Your task to perform on an android device: Open the stopwatch Image 0: 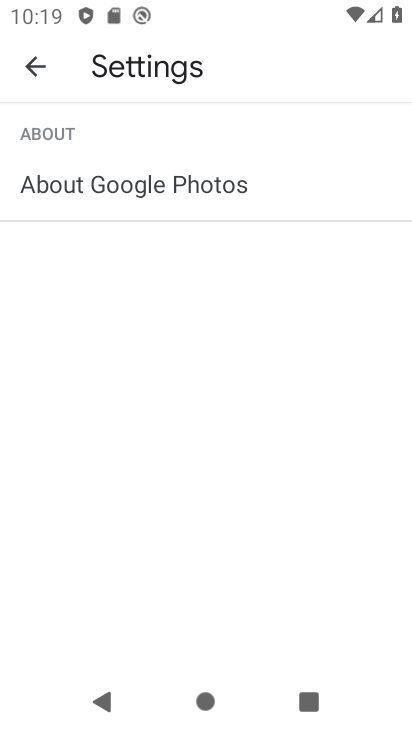
Step 0: press home button
Your task to perform on an android device: Open the stopwatch Image 1: 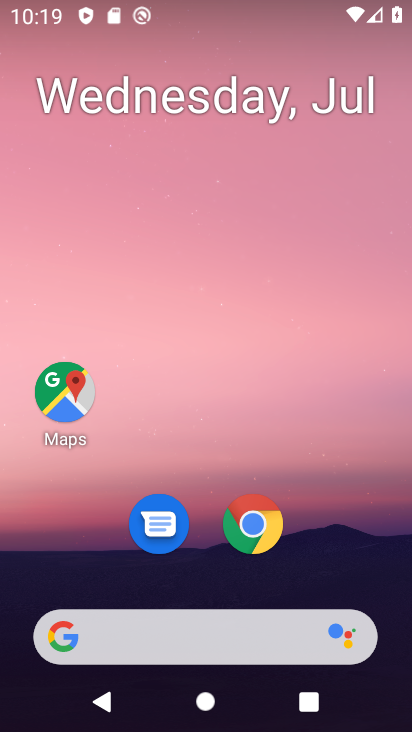
Step 1: drag from (172, 641) to (305, 172)
Your task to perform on an android device: Open the stopwatch Image 2: 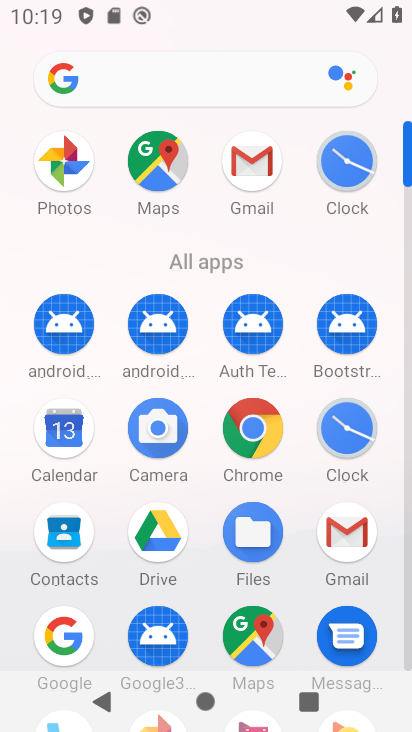
Step 2: click (339, 442)
Your task to perform on an android device: Open the stopwatch Image 3: 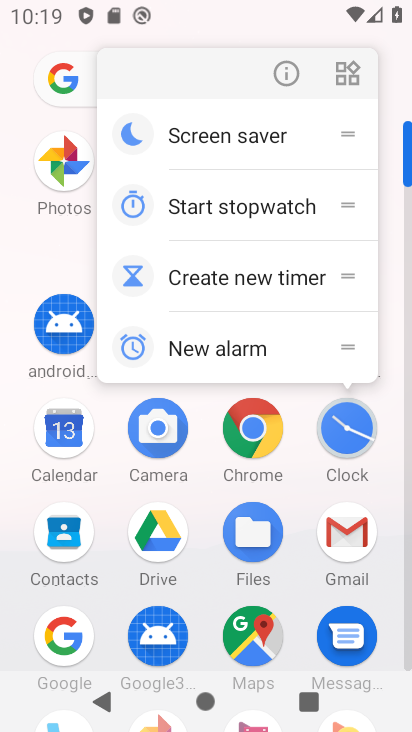
Step 3: click (343, 434)
Your task to perform on an android device: Open the stopwatch Image 4: 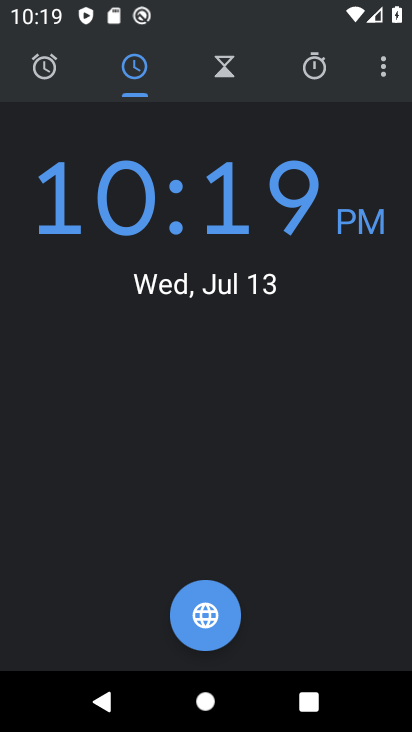
Step 4: click (311, 78)
Your task to perform on an android device: Open the stopwatch Image 5: 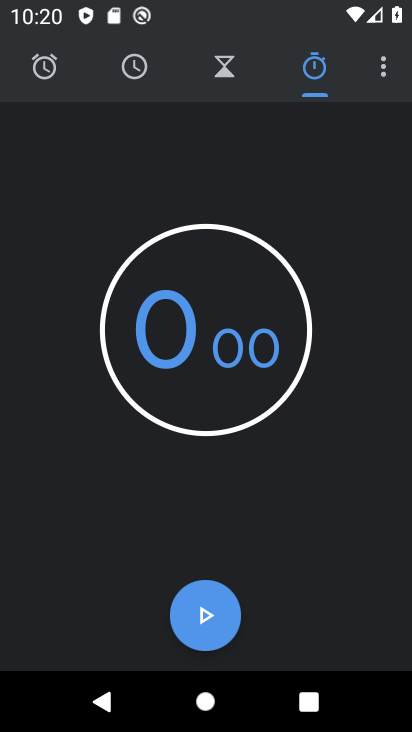
Step 5: task complete